Your task to perform on an android device: Go to Yahoo.com Image 0: 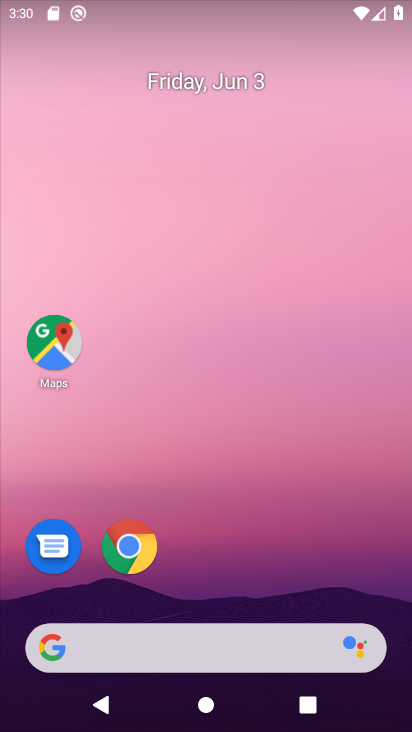
Step 0: click (260, 651)
Your task to perform on an android device: Go to Yahoo.com Image 1: 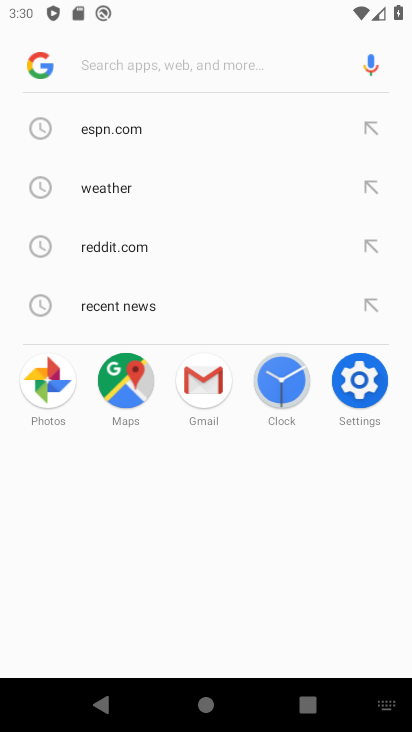
Step 1: type "yahoo.com"
Your task to perform on an android device: Go to Yahoo.com Image 2: 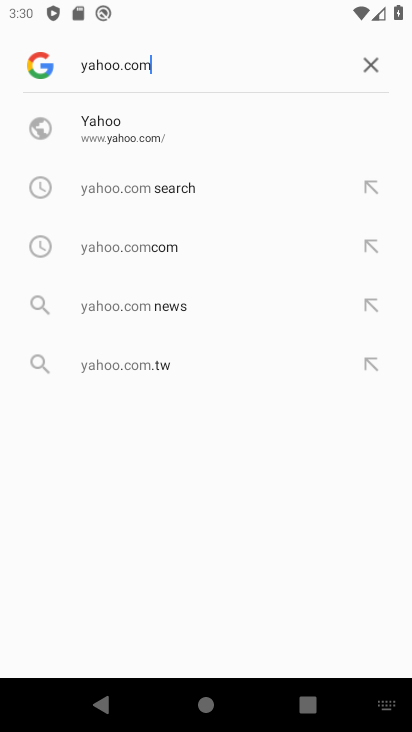
Step 2: click (119, 122)
Your task to perform on an android device: Go to Yahoo.com Image 3: 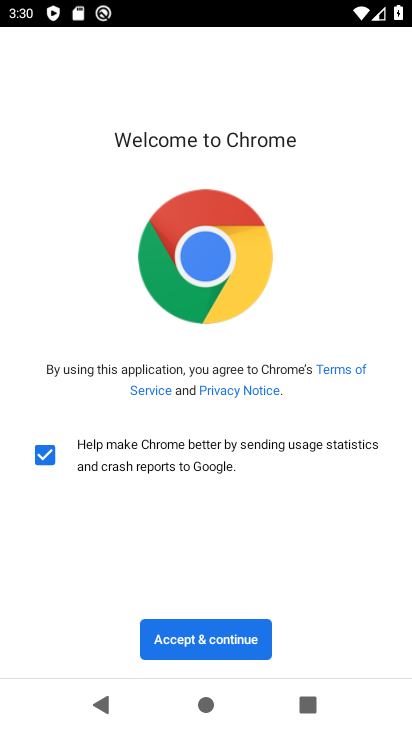
Step 3: click (249, 640)
Your task to perform on an android device: Go to Yahoo.com Image 4: 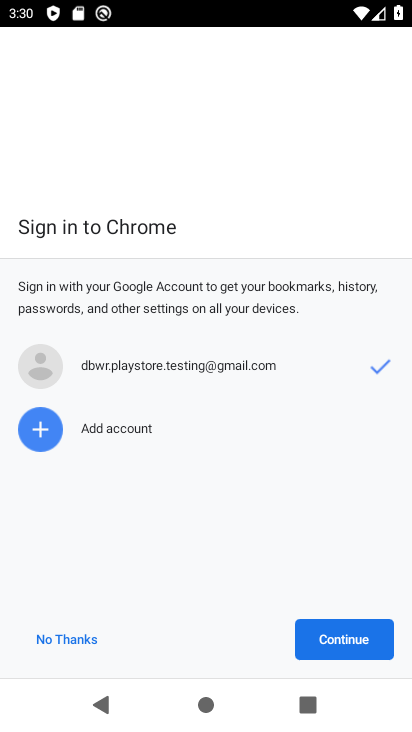
Step 4: click (319, 631)
Your task to perform on an android device: Go to Yahoo.com Image 5: 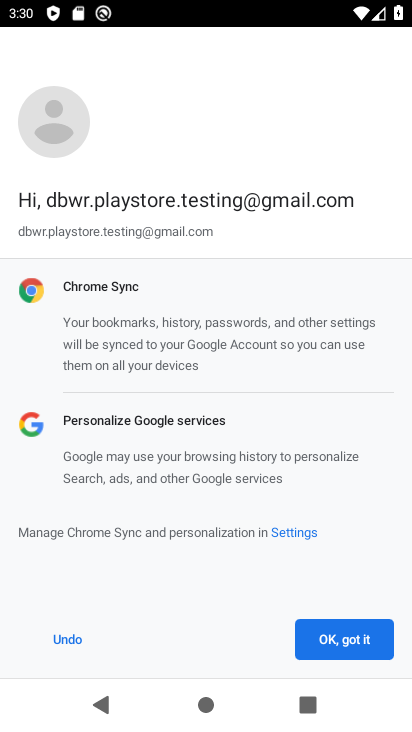
Step 5: click (341, 646)
Your task to perform on an android device: Go to Yahoo.com Image 6: 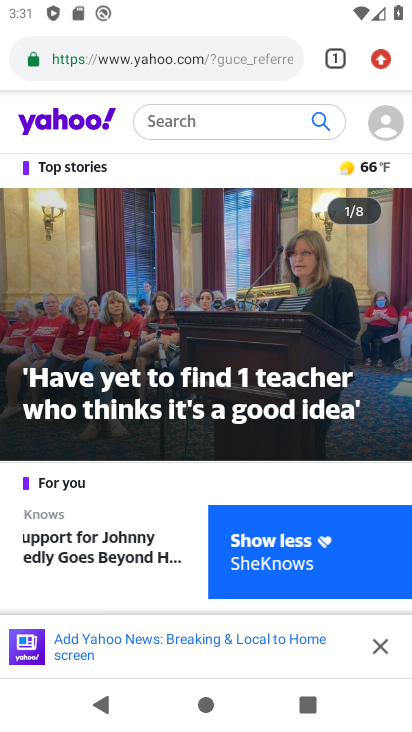
Step 6: task complete